Your task to perform on an android device: Open the Play Movies app and select the watchlist tab. Image 0: 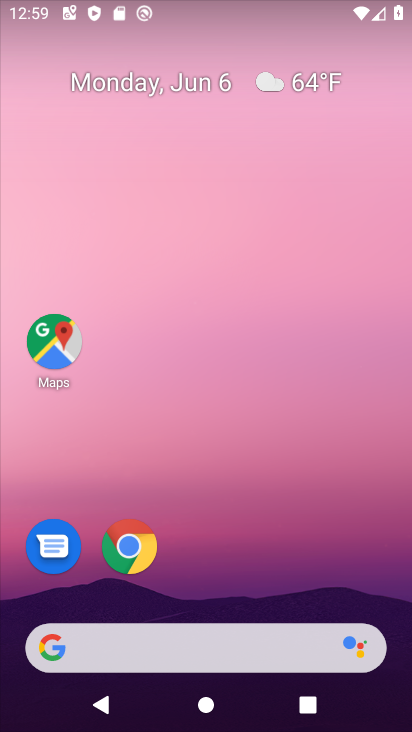
Step 0: drag from (243, 392) to (293, 69)
Your task to perform on an android device: Open the Play Movies app and select the watchlist tab. Image 1: 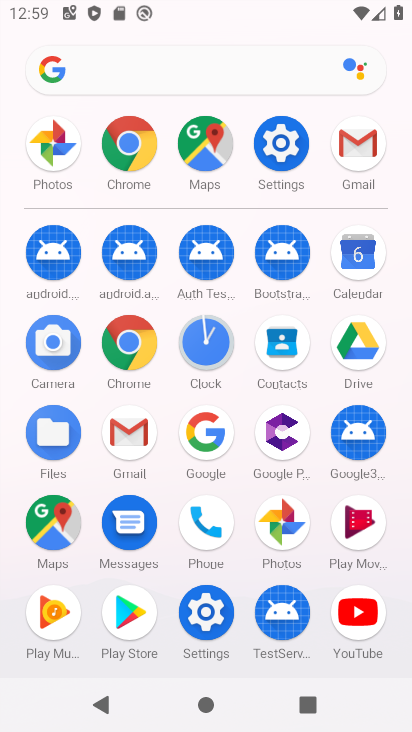
Step 1: click (358, 520)
Your task to perform on an android device: Open the Play Movies app and select the watchlist tab. Image 2: 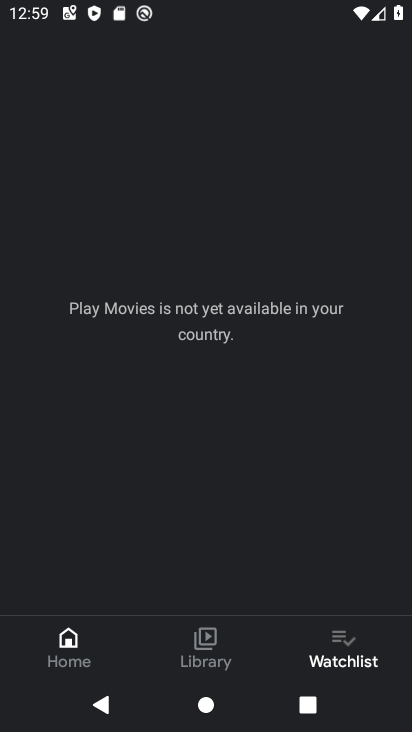
Step 2: click (326, 629)
Your task to perform on an android device: Open the Play Movies app and select the watchlist tab. Image 3: 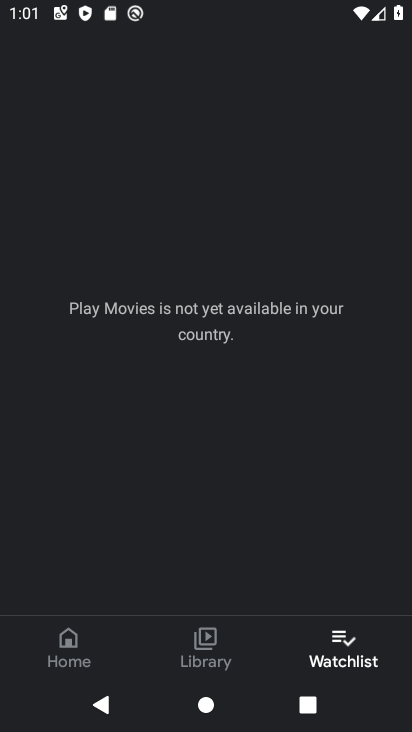
Step 3: task complete